Your task to perform on an android device: delete browsing data in the chrome app Image 0: 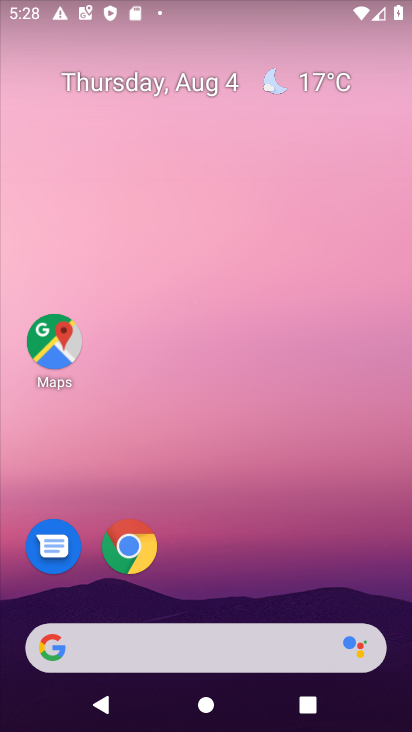
Step 0: click (130, 547)
Your task to perform on an android device: delete browsing data in the chrome app Image 1: 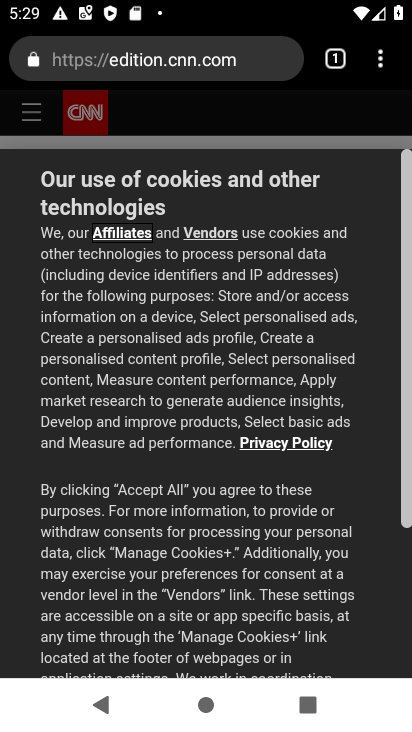
Step 1: click (383, 59)
Your task to perform on an android device: delete browsing data in the chrome app Image 2: 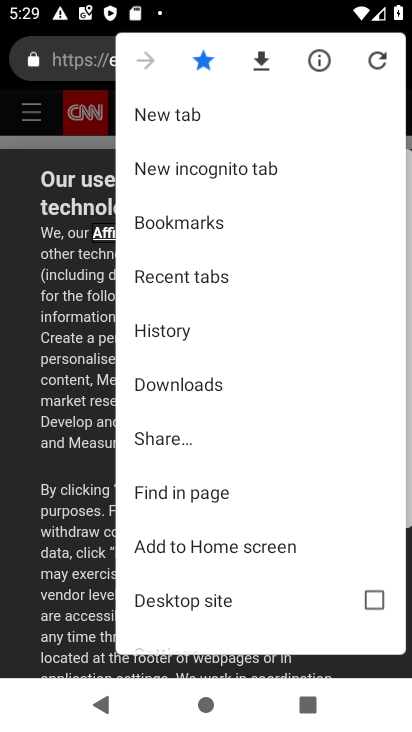
Step 2: click (176, 330)
Your task to perform on an android device: delete browsing data in the chrome app Image 3: 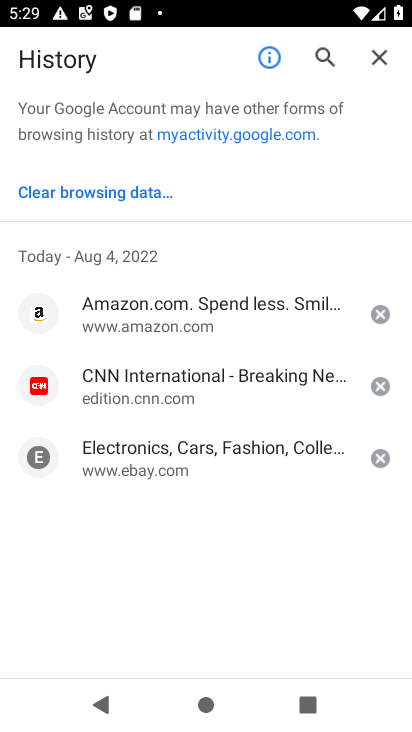
Step 3: click (94, 196)
Your task to perform on an android device: delete browsing data in the chrome app Image 4: 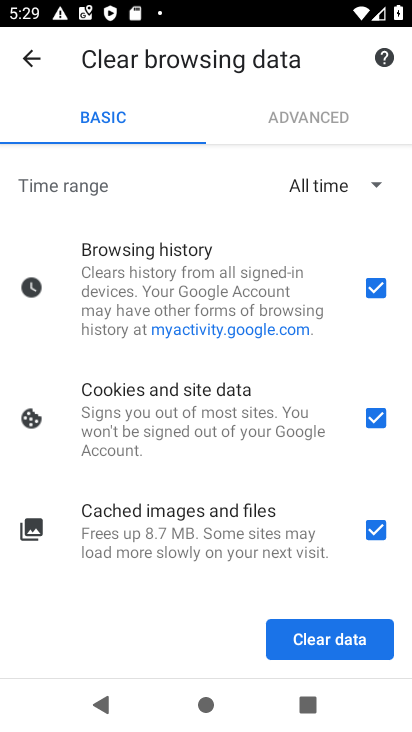
Step 4: click (308, 639)
Your task to perform on an android device: delete browsing data in the chrome app Image 5: 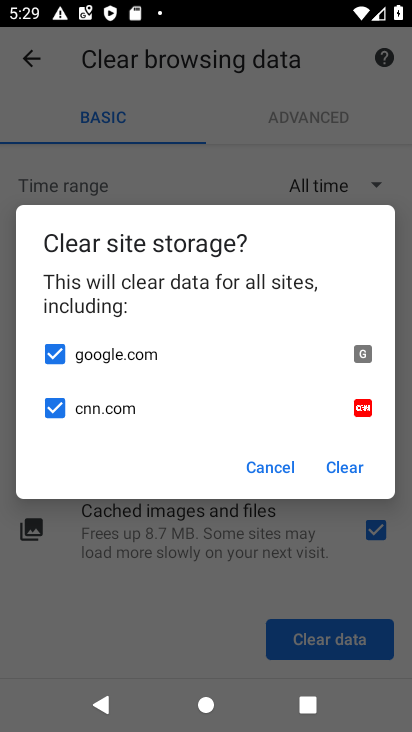
Step 5: click (347, 458)
Your task to perform on an android device: delete browsing data in the chrome app Image 6: 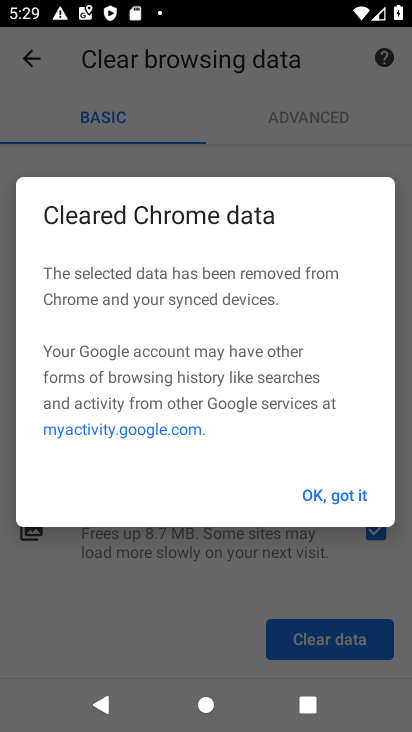
Step 6: click (322, 492)
Your task to perform on an android device: delete browsing data in the chrome app Image 7: 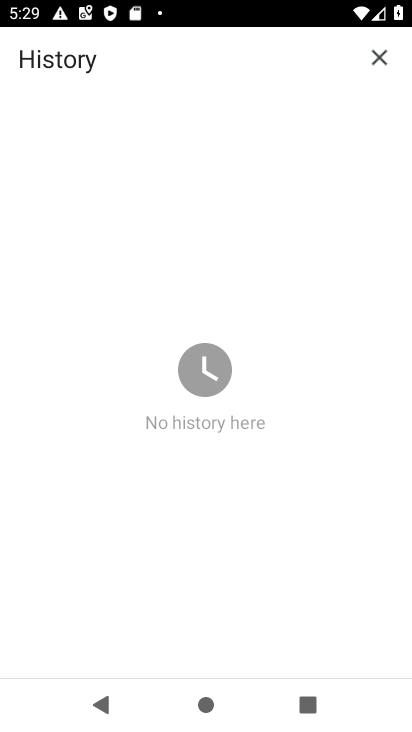
Step 7: task complete